Your task to perform on an android device: Open sound settings Image 0: 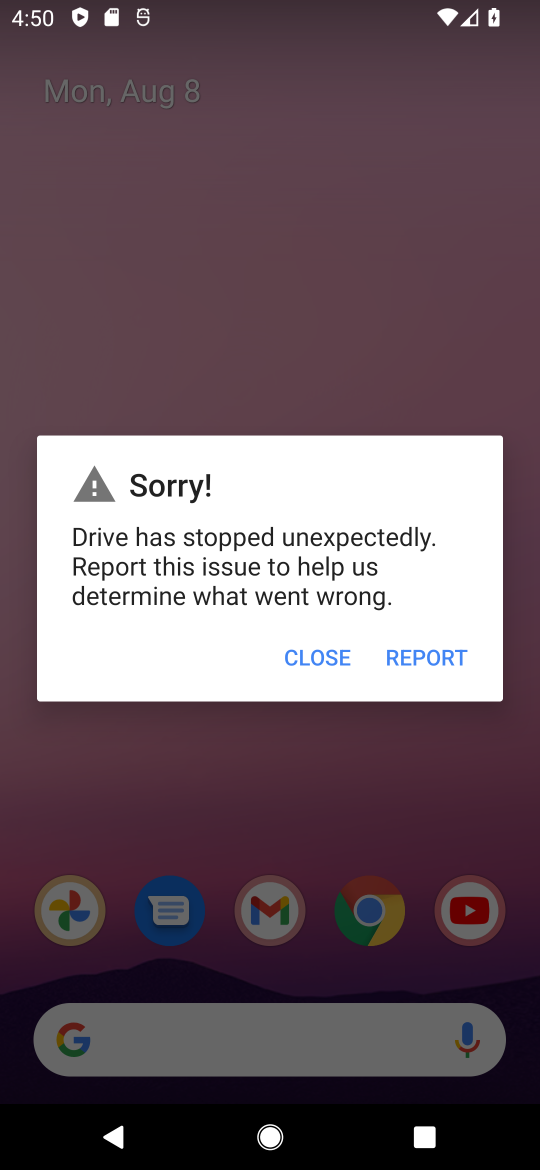
Step 0: press home button
Your task to perform on an android device: Open sound settings Image 1: 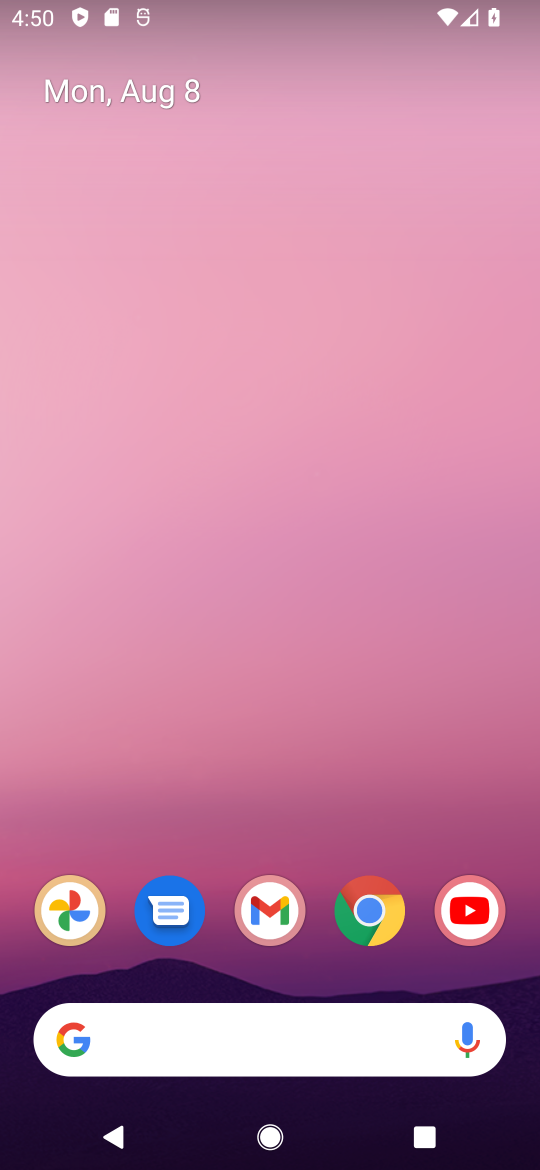
Step 1: drag from (235, 1060) to (333, 494)
Your task to perform on an android device: Open sound settings Image 2: 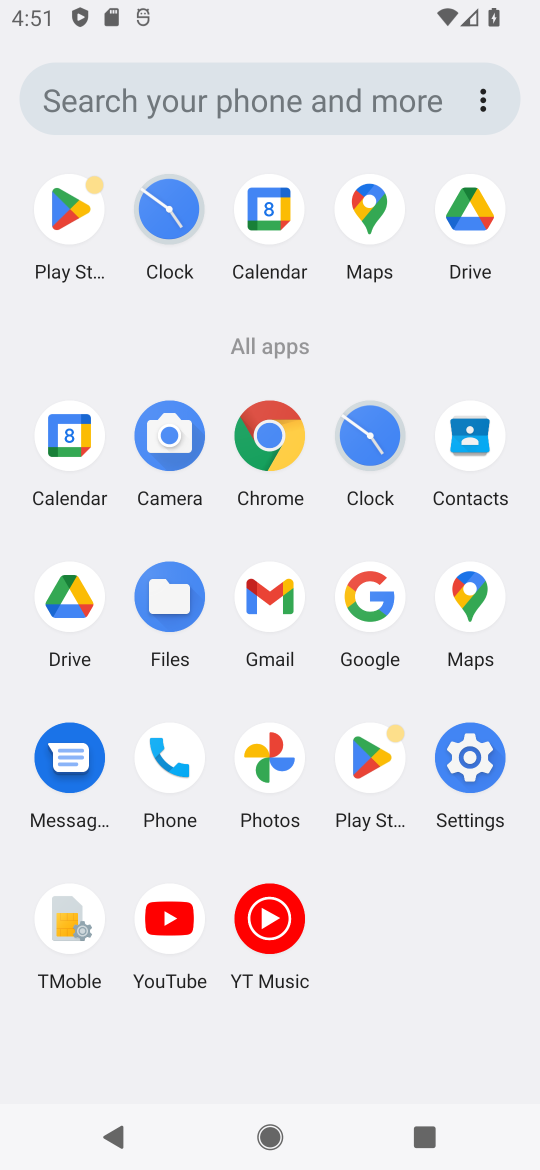
Step 2: click (473, 757)
Your task to perform on an android device: Open sound settings Image 3: 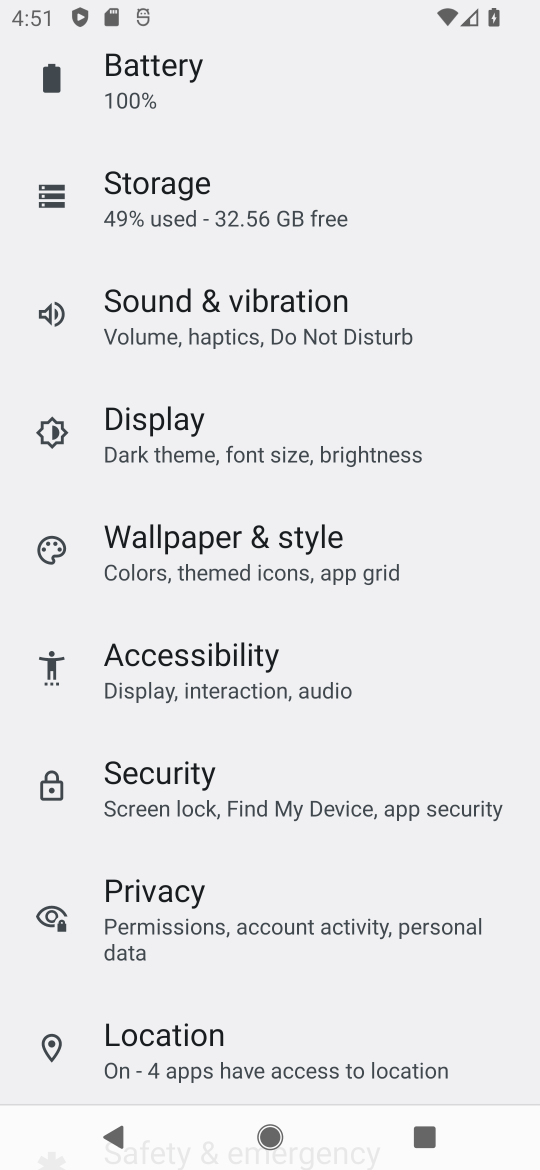
Step 3: drag from (298, 267) to (362, 668)
Your task to perform on an android device: Open sound settings Image 4: 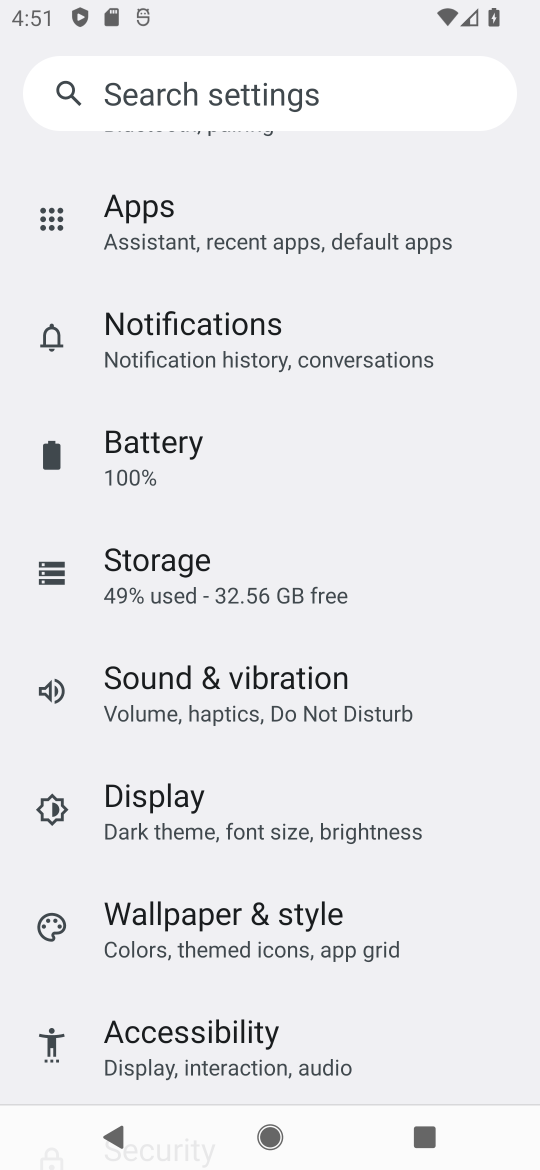
Step 4: click (250, 694)
Your task to perform on an android device: Open sound settings Image 5: 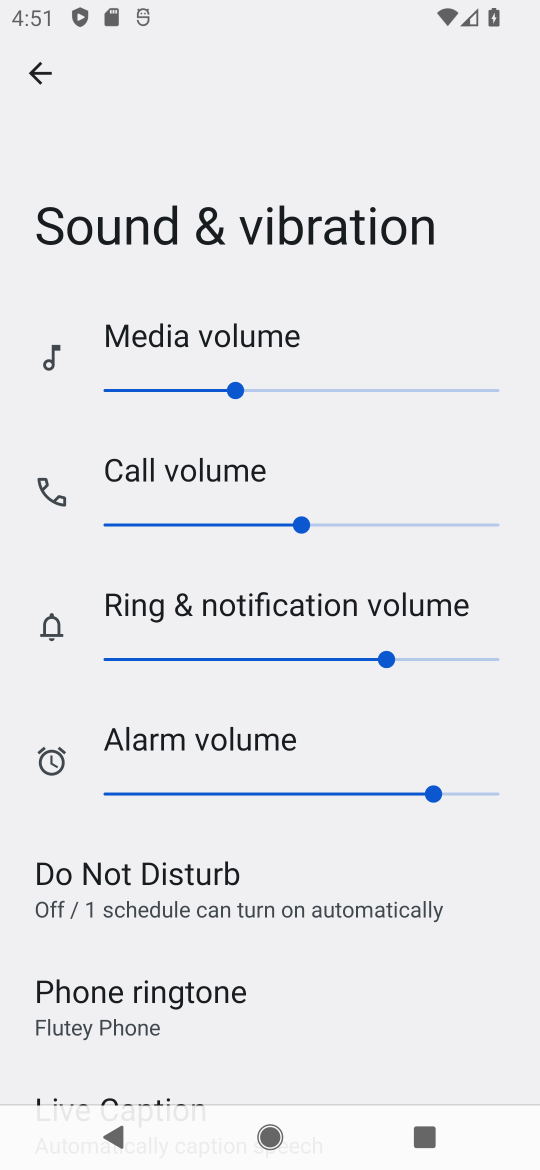
Step 5: task complete